Your task to perform on an android device: open app "Move to iOS" Image 0: 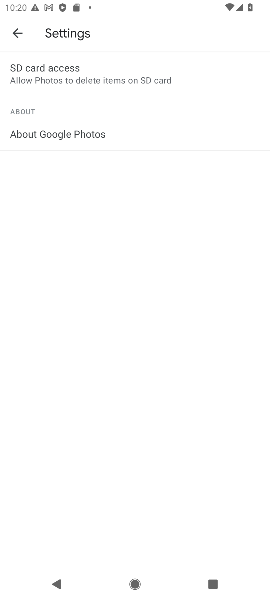
Step 0: press home button
Your task to perform on an android device: open app "Move to iOS" Image 1: 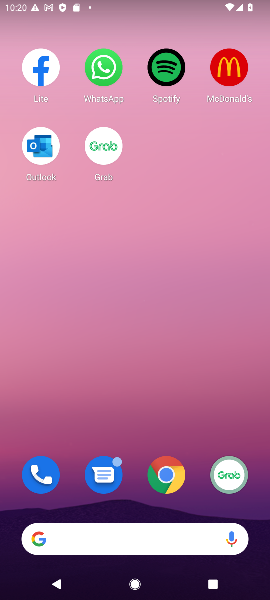
Step 1: drag from (153, 520) to (120, 469)
Your task to perform on an android device: open app "Move to iOS" Image 2: 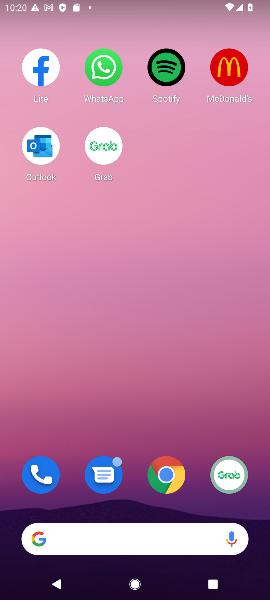
Step 2: drag from (166, 500) to (111, 94)
Your task to perform on an android device: open app "Move to iOS" Image 3: 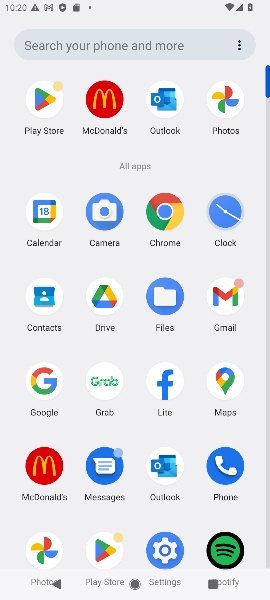
Step 3: click (104, 549)
Your task to perform on an android device: open app "Move to iOS" Image 4: 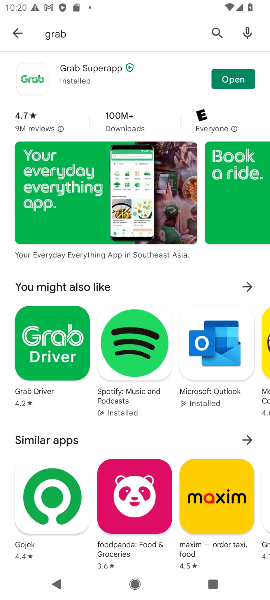
Step 4: click (18, 46)
Your task to perform on an android device: open app "Move to iOS" Image 5: 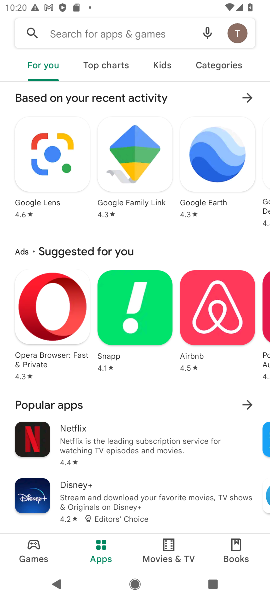
Step 5: click (68, 27)
Your task to perform on an android device: open app "Move to iOS" Image 6: 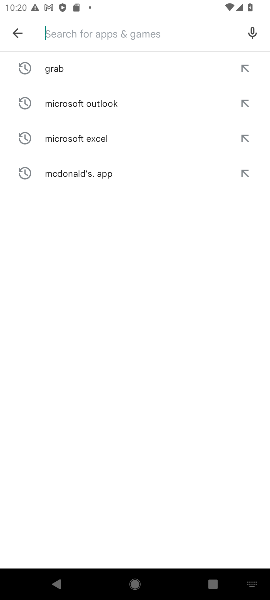
Step 6: type "Move to iOS"
Your task to perform on an android device: open app "Move to iOS" Image 7: 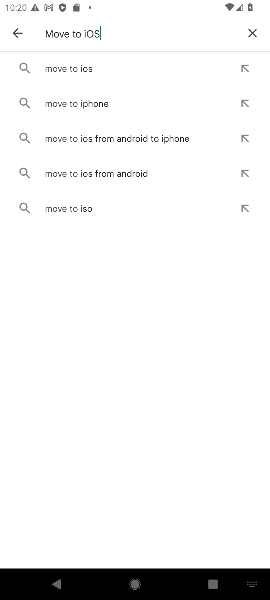
Step 7: type ""
Your task to perform on an android device: open app "Move to iOS" Image 8: 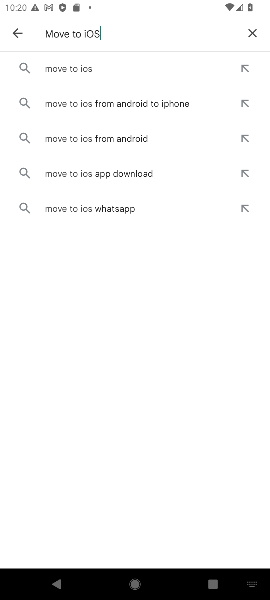
Step 8: click (77, 83)
Your task to perform on an android device: open app "Move to iOS" Image 9: 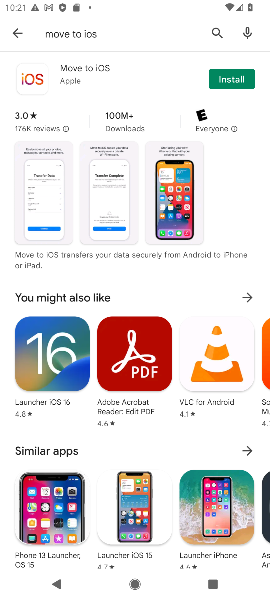
Step 9: task complete